Your task to perform on an android device: Open battery settings Image 0: 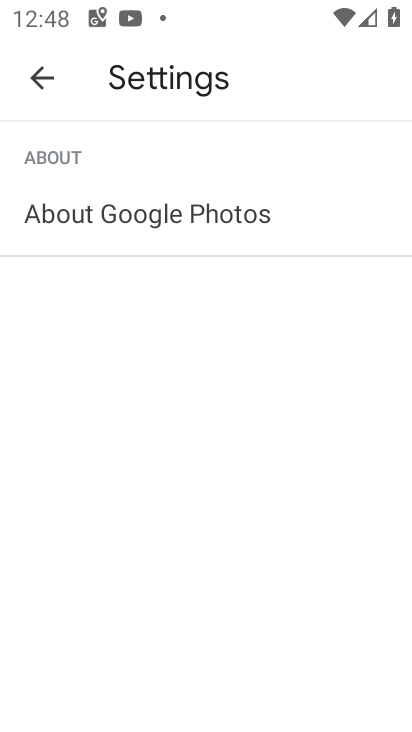
Step 0: press home button
Your task to perform on an android device: Open battery settings Image 1: 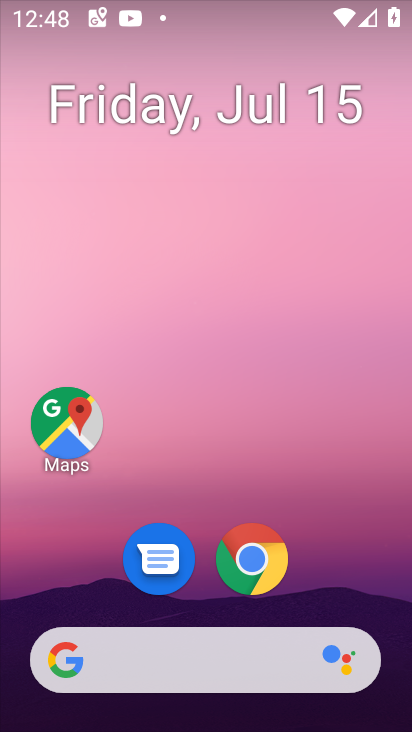
Step 1: drag from (350, 583) to (407, 116)
Your task to perform on an android device: Open battery settings Image 2: 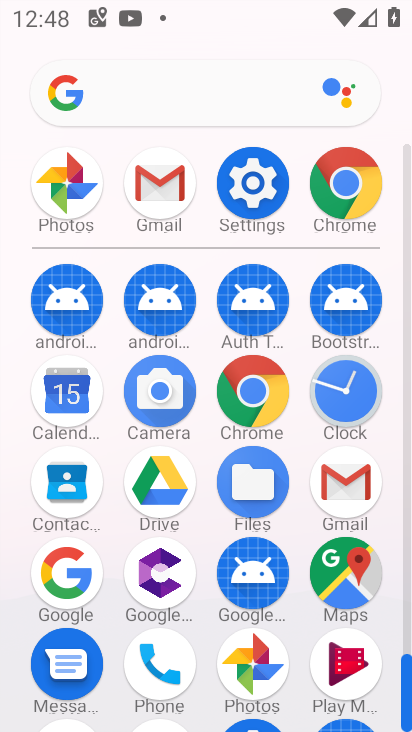
Step 2: click (240, 172)
Your task to perform on an android device: Open battery settings Image 3: 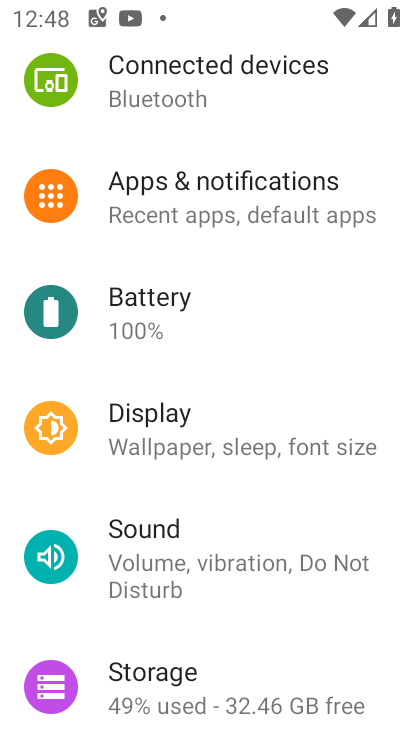
Step 3: drag from (374, 328) to (374, 421)
Your task to perform on an android device: Open battery settings Image 4: 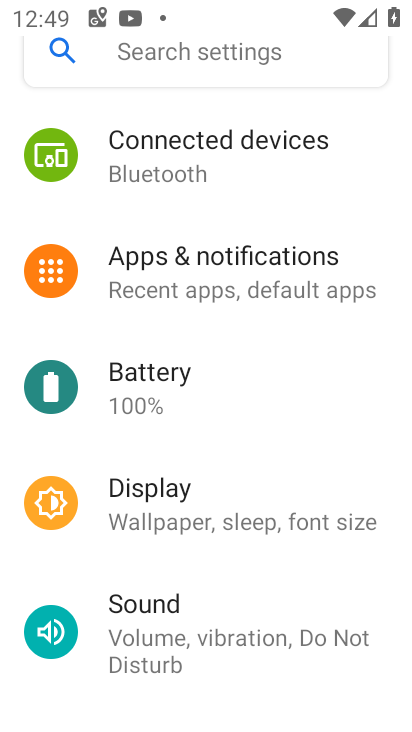
Step 4: drag from (370, 359) to (368, 445)
Your task to perform on an android device: Open battery settings Image 5: 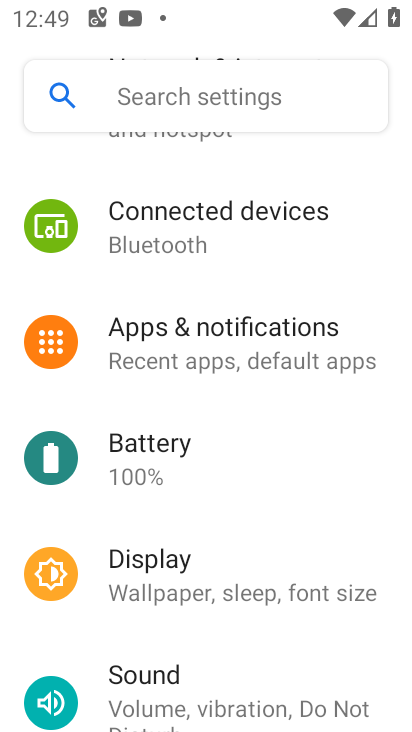
Step 5: drag from (364, 375) to (359, 431)
Your task to perform on an android device: Open battery settings Image 6: 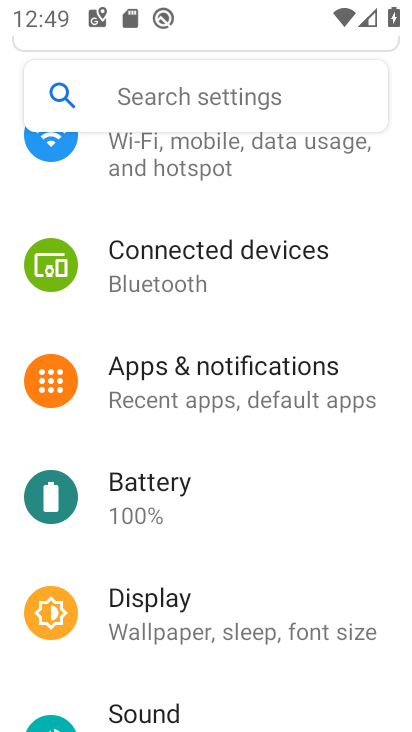
Step 6: click (364, 391)
Your task to perform on an android device: Open battery settings Image 7: 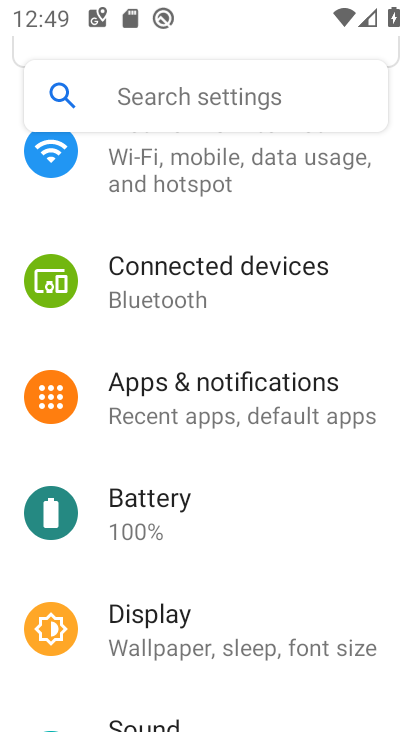
Step 7: drag from (382, 335) to (382, 400)
Your task to perform on an android device: Open battery settings Image 8: 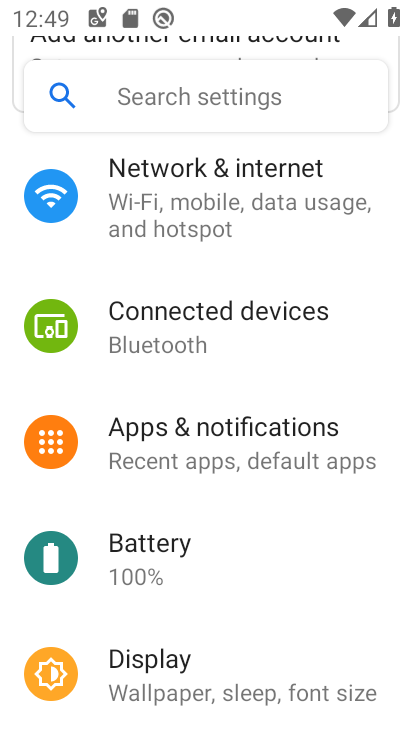
Step 8: drag from (394, 324) to (382, 425)
Your task to perform on an android device: Open battery settings Image 9: 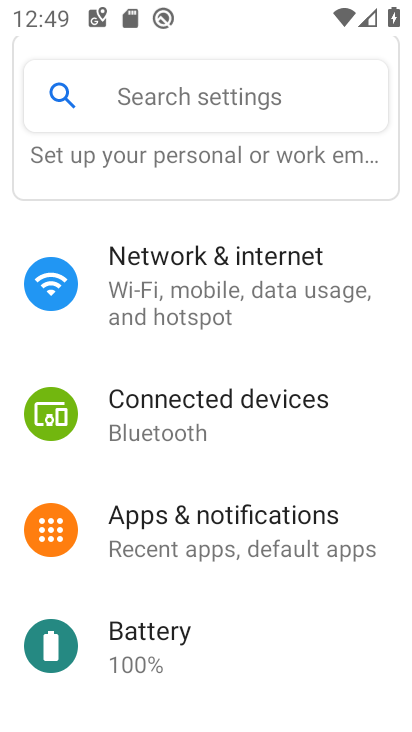
Step 9: drag from (323, 634) to (336, 539)
Your task to perform on an android device: Open battery settings Image 10: 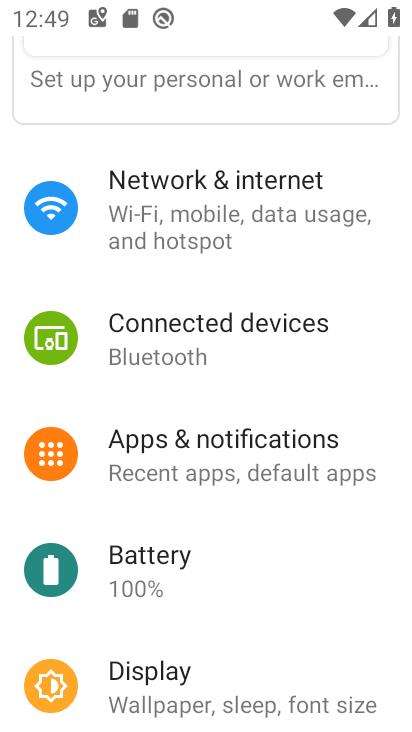
Step 10: click (288, 578)
Your task to perform on an android device: Open battery settings Image 11: 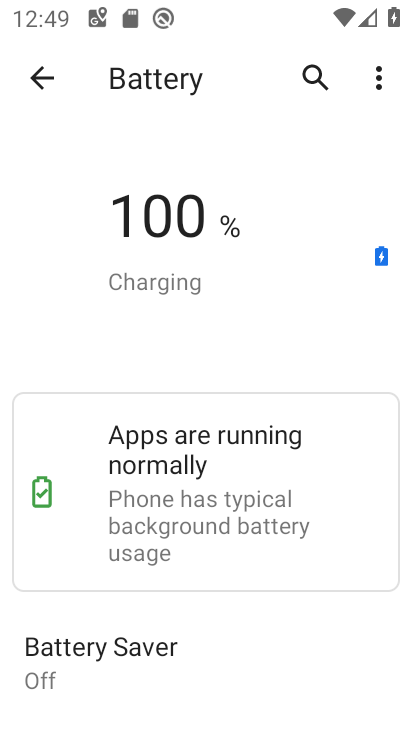
Step 11: task complete